Your task to perform on an android device: create a new album in the google photos Image 0: 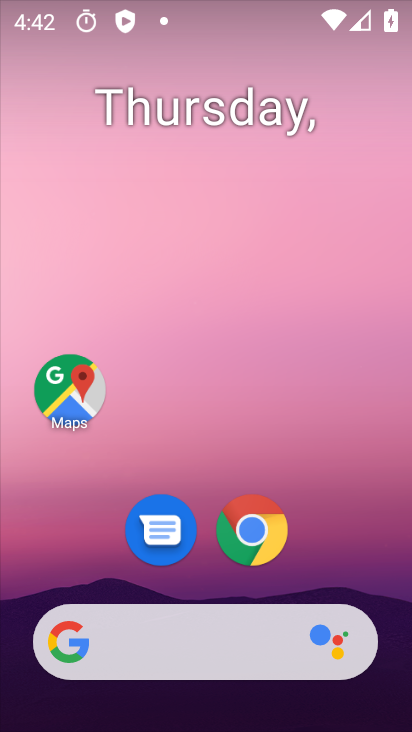
Step 0: drag from (175, 639) to (294, 12)
Your task to perform on an android device: create a new album in the google photos Image 1: 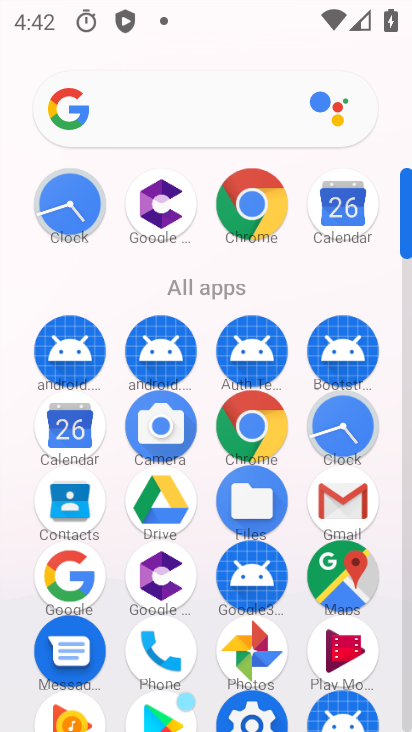
Step 1: click (252, 659)
Your task to perform on an android device: create a new album in the google photos Image 2: 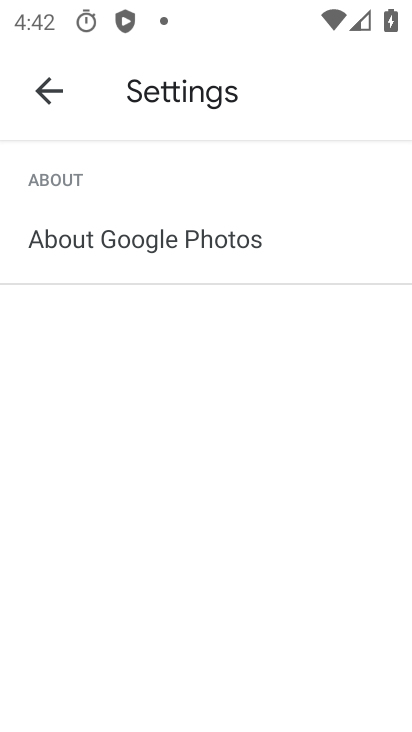
Step 2: press back button
Your task to perform on an android device: create a new album in the google photos Image 3: 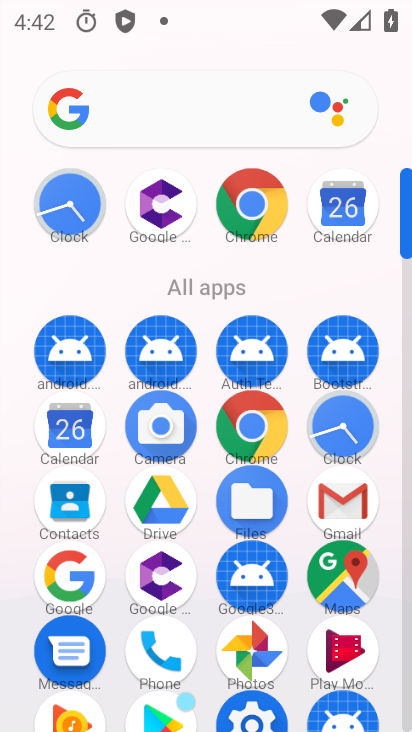
Step 3: click (259, 648)
Your task to perform on an android device: create a new album in the google photos Image 4: 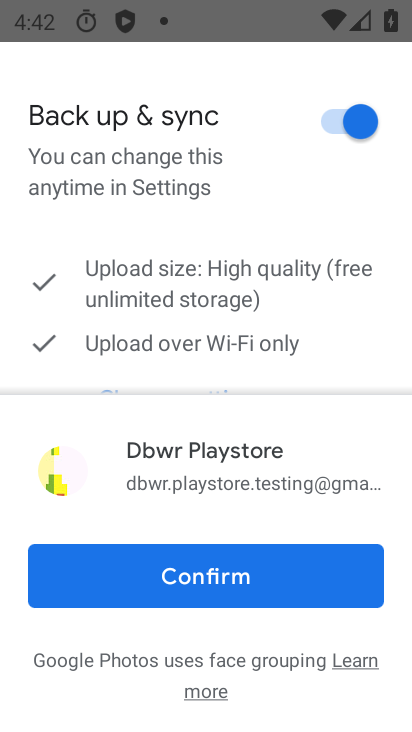
Step 4: click (305, 586)
Your task to perform on an android device: create a new album in the google photos Image 5: 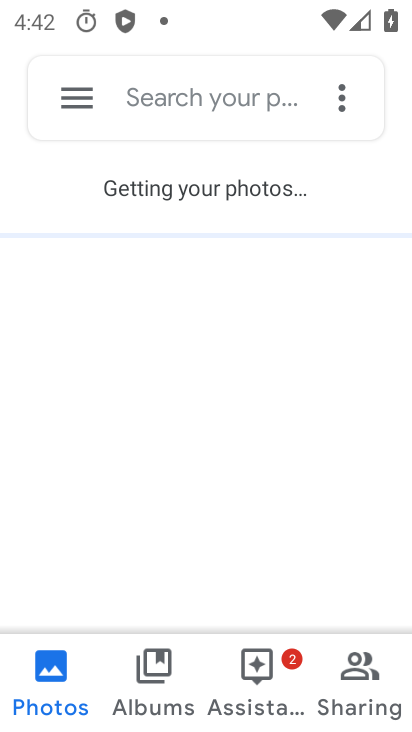
Step 5: click (165, 675)
Your task to perform on an android device: create a new album in the google photos Image 6: 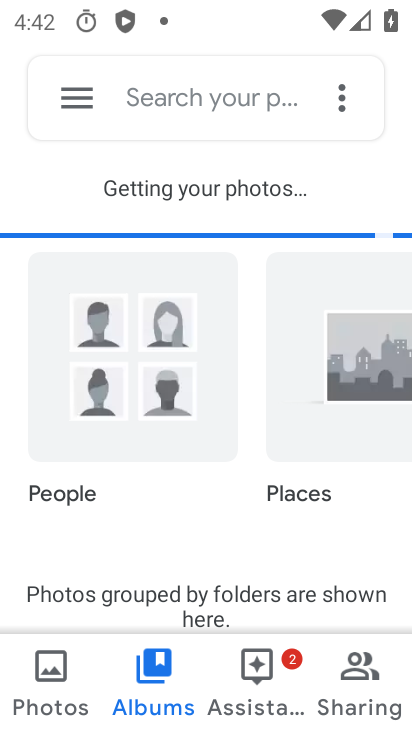
Step 6: drag from (342, 569) to (329, 61)
Your task to perform on an android device: create a new album in the google photos Image 7: 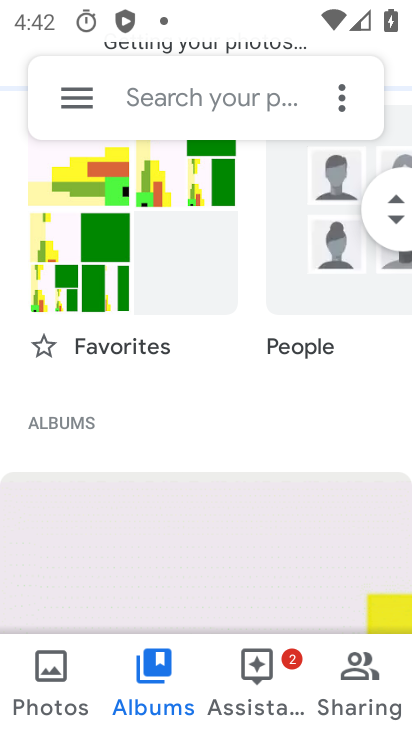
Step 7: drag from (312, 586) to (307, 218)
Your task to perform on an android device: create a new album in the google photos Image 8: 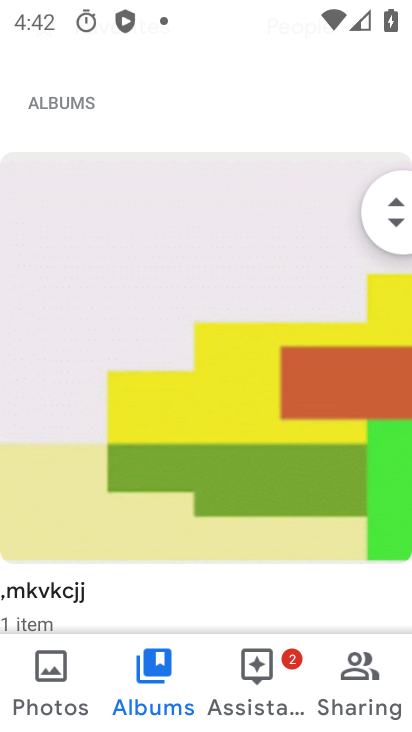
Step 8: drag from (273, 242) to (304, 716)
Your task to perform on an android device: create a new album in the google photos Image 9: 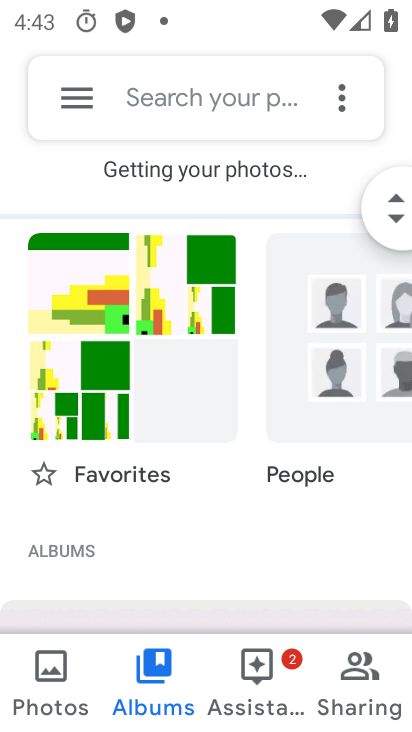
Step 9: click (337, 89)
Your task to perform on an android device: create a new album in the google photos Image 10: 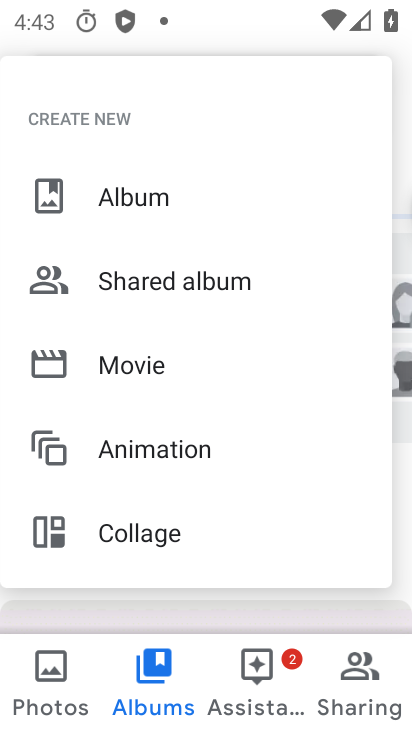
Step 10: click (217, 199)
Your task to perform on an android device: create a new album in the google photos Image 11: 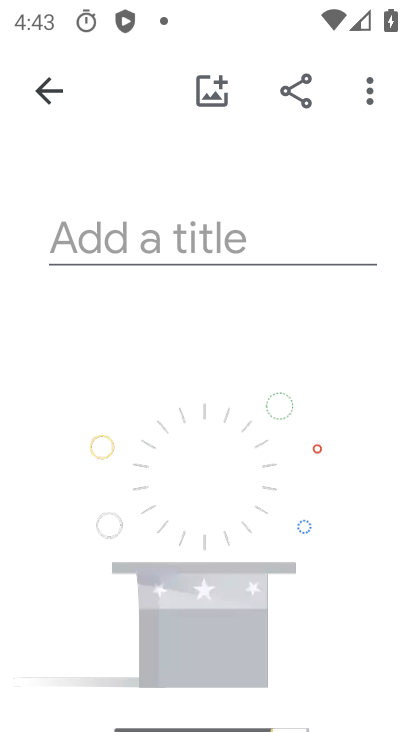
Step 11: task complete